Your task to perform on an android device: Open Yahoo.com Image 0: 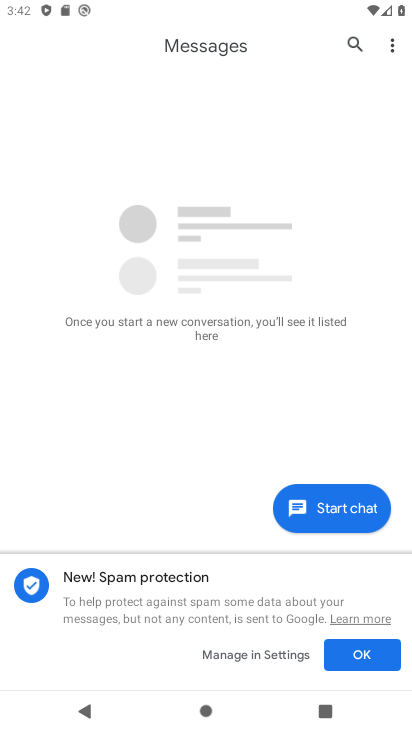
Step 0: press home button
Your task to perform on an android device: Open Yahoo.com Image 1: 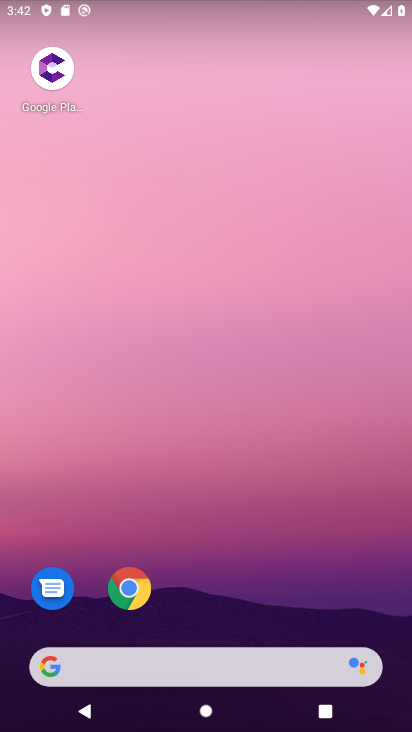
Step 1: click (133, 591)
Your task to perform on an android device: Open Yahoo.com Image 2: 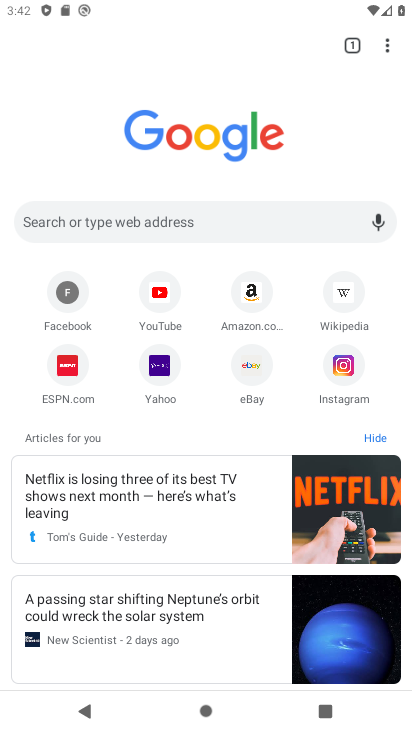
Step 2: click (159, 380)
Your task to perform on an android device: Open Yahoo.com Image 3: 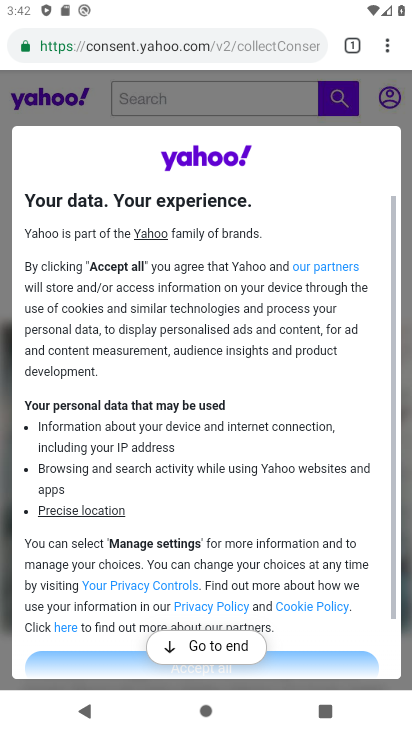
Step 3: task complete